Your task to perform on an android device: open wifi settings Image 0: 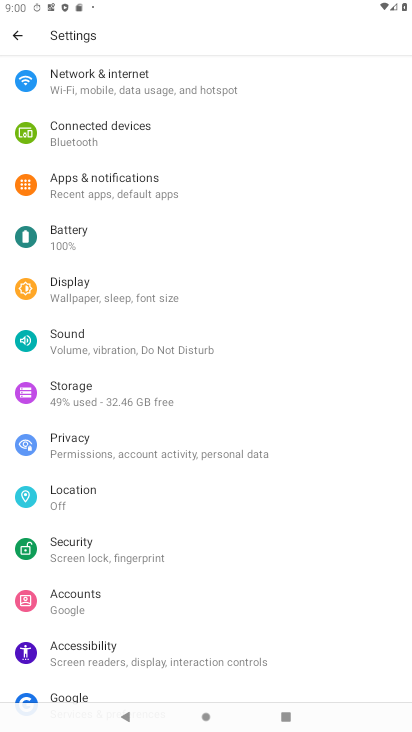
Step 0: press home button
Your task to perform on an android device: open wifi settings Image 1: 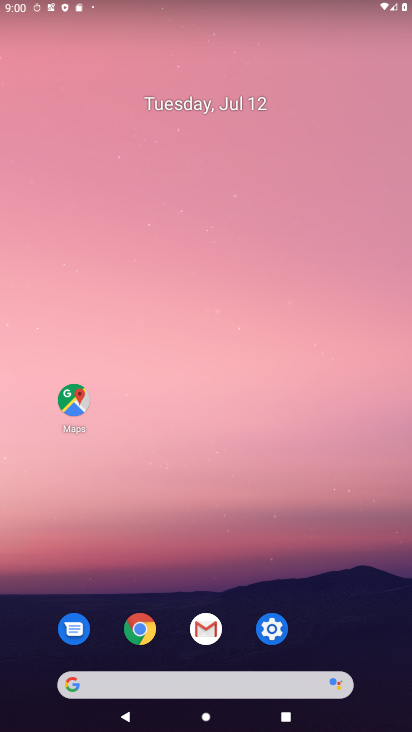
Step 1: click (281, 620)
Your task to perform on an android device: open wifi settings Image 2: 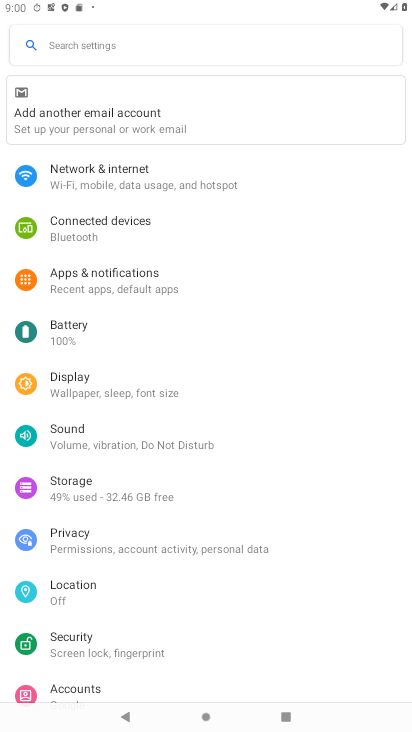
Step 2: click (110, 178)
Your task to perform on an android device: open wifi settings Image 3: 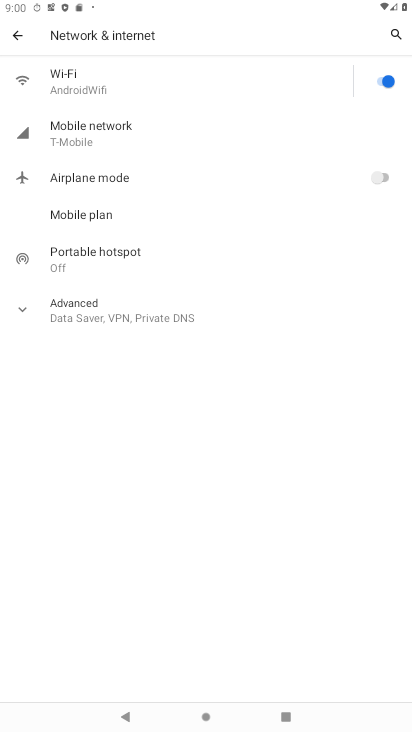
Step 3: click (105, 88)
Your task to perform on an android device: open wifi settings Image 4: 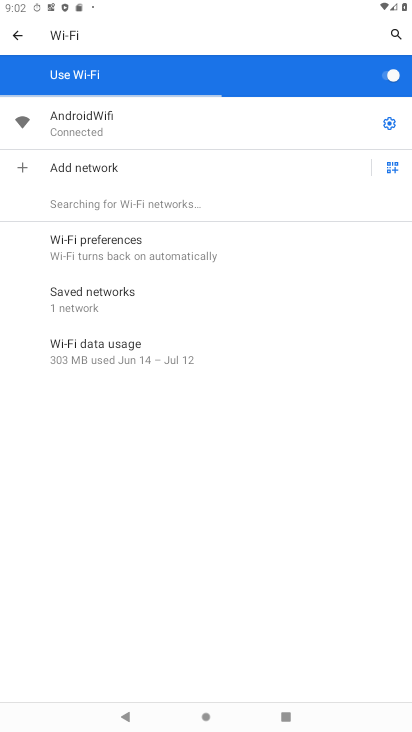
Step 4: task complete